Your task to perform on an android device: create a new album in the google photos Image 0: 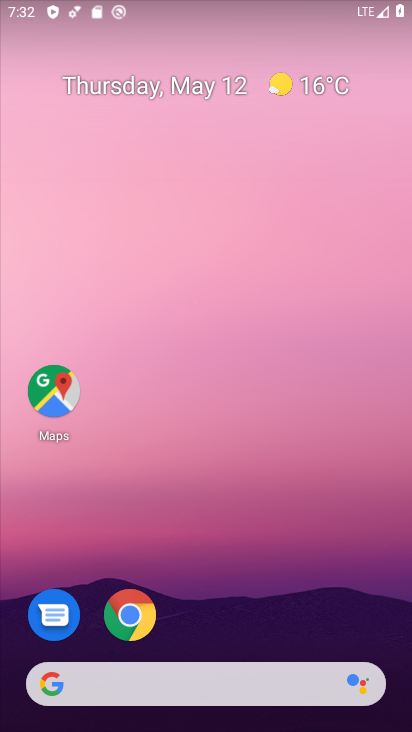
Step 0: drag from (293, 534) to (221, 36)
Your task to perform on an android device: create a new album in the google photos Image 1: 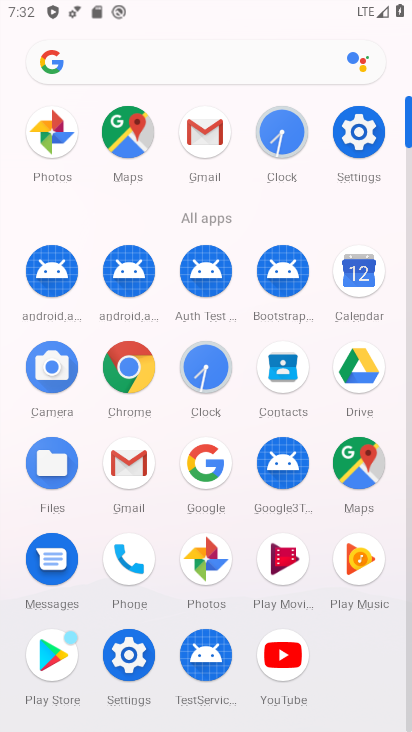
Step 1: click (58, 126)
Your task to perform on an android device: create a new album in the google photos Image 2: 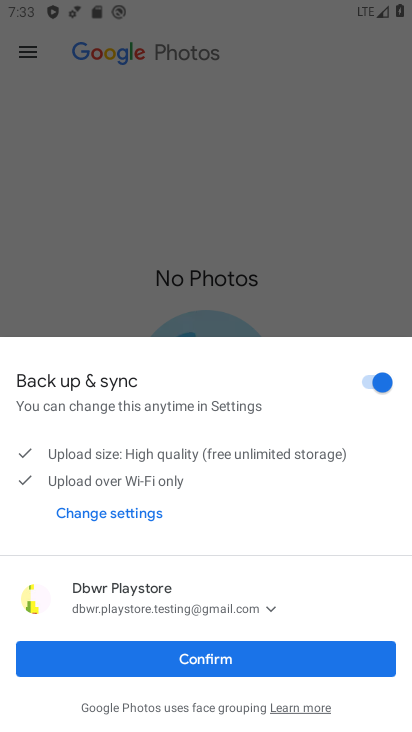
Step 2: click (279, 660)
Your task to perform on an android device: create a new album in the google photos Image 3: 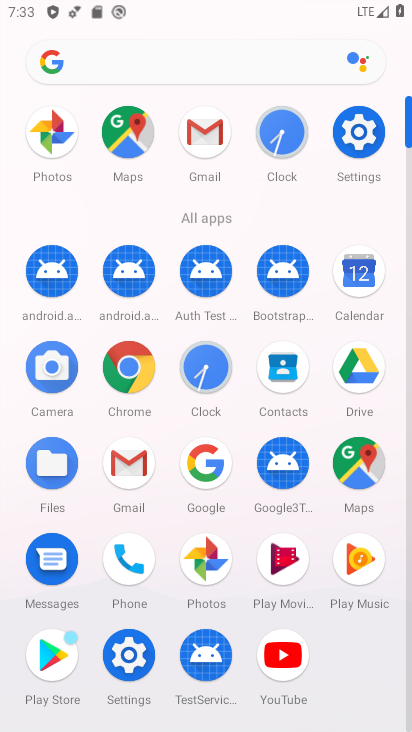
Step 3: click (47, 120)
Your task to perform on an android device: create a new album in the google photos Image 4: 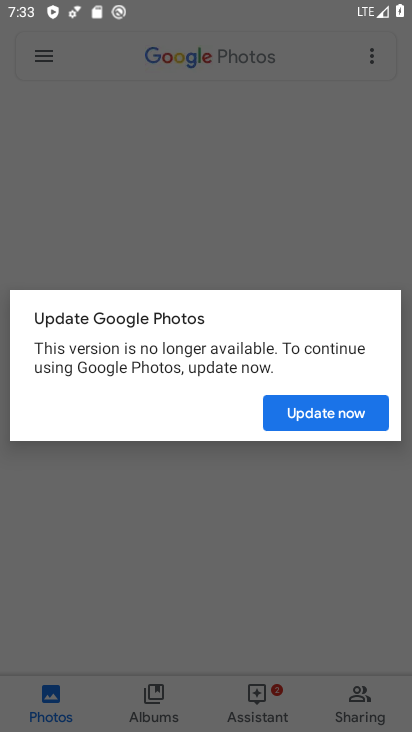
Step 4: click (326, 411)
Your task to perform on an android device: create a new album in the google photos Image 5: 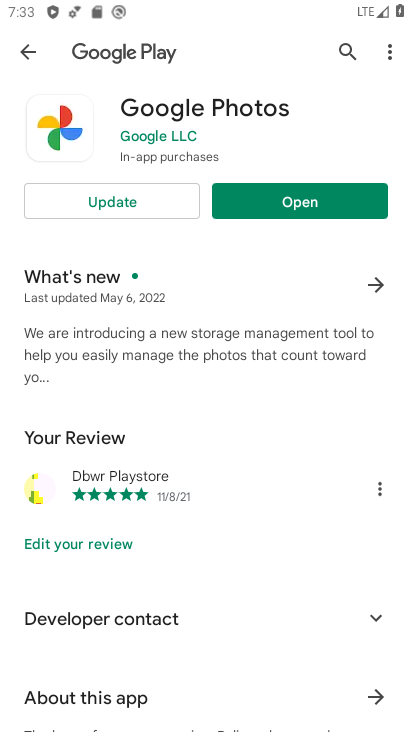
Step 5: click (302, 199)
Your task to perform on an android device: create a new album in the google photos Image 6: 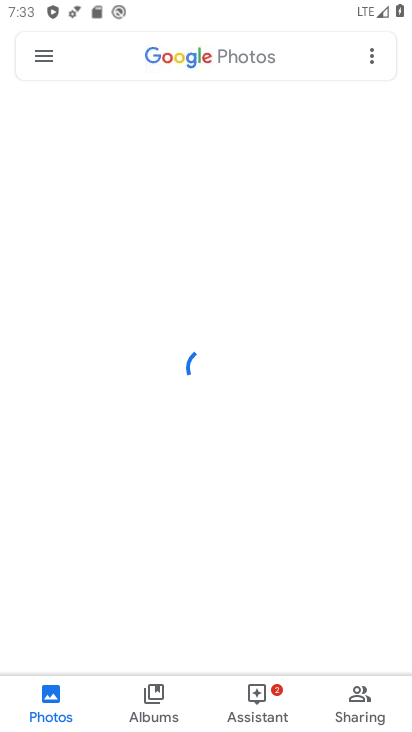
Step 6: click (144, 688)
Your task to perform on an android device: create a new album in the google photos Image 7: 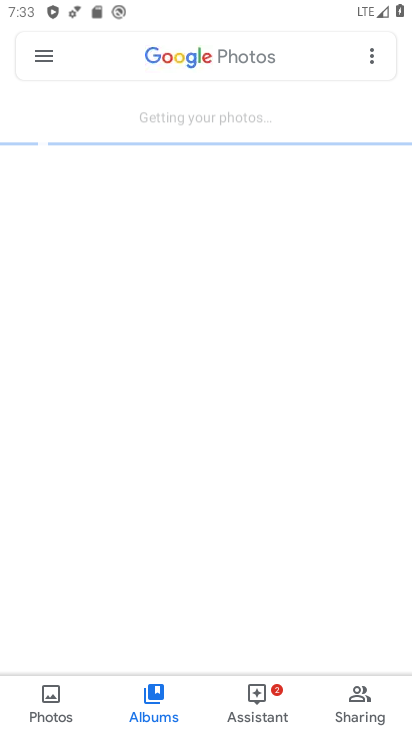
Step 7: click (156, 705)
Your task to perform on an android device: create a new album in the google photos Image 8: 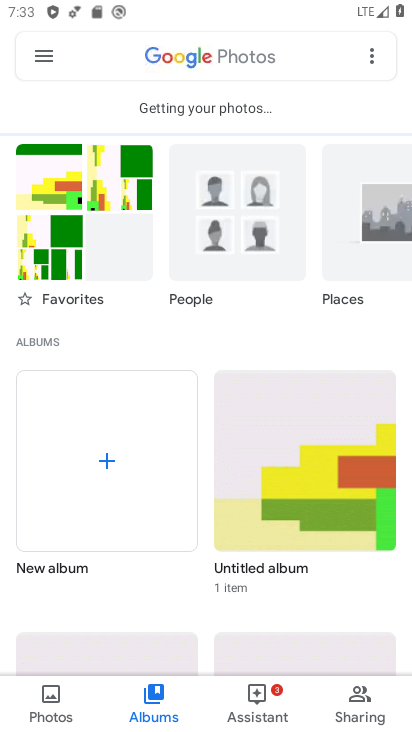
Step 8: click (368, 50)
Your task to perform on an android device: create a new album in the google photos Image 9: 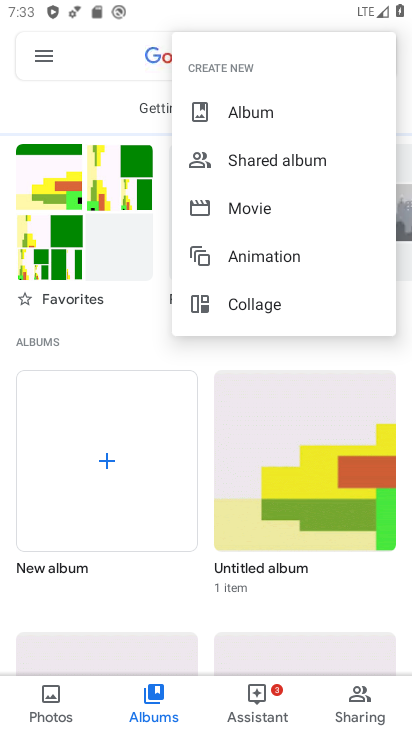
Step 9: click (312, 102)
Your task to perform on an android device: create a new album in the google photos Image 10: 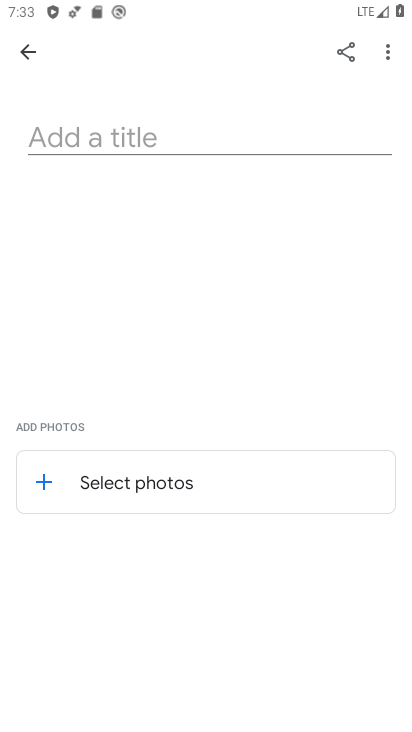
Step 10: click (240, 139)
Your task to perform on an android device: create a new album in the google photos Image 11: 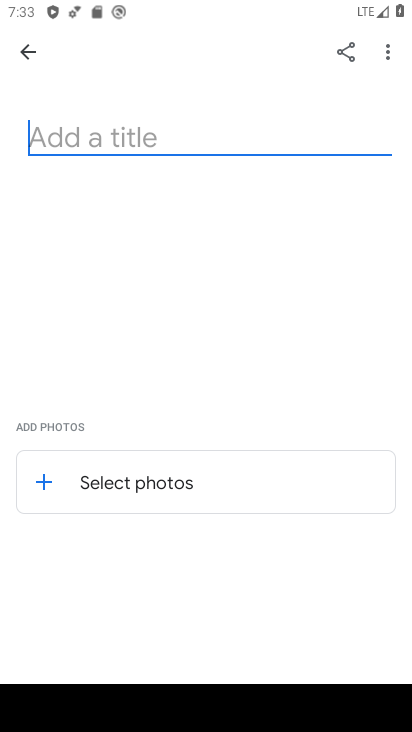
Step 11: type "Kamakhya Mandir"
Your task to perform on an android device: create a new album in the google photos Image 12: 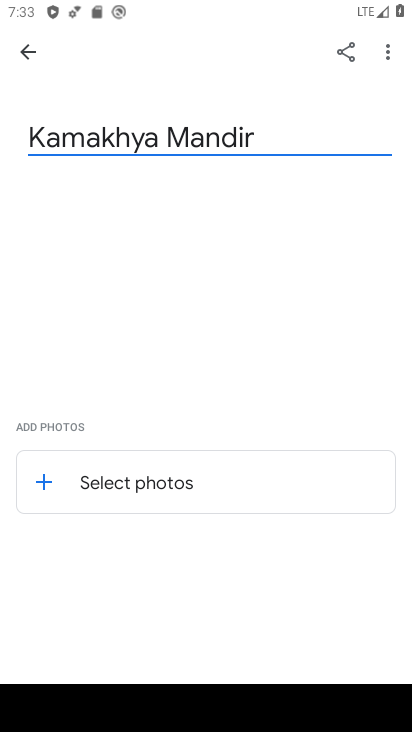
Step 12: click (34, 475)
Your task to perform on an android device: create a new album in the google photos Image 13: 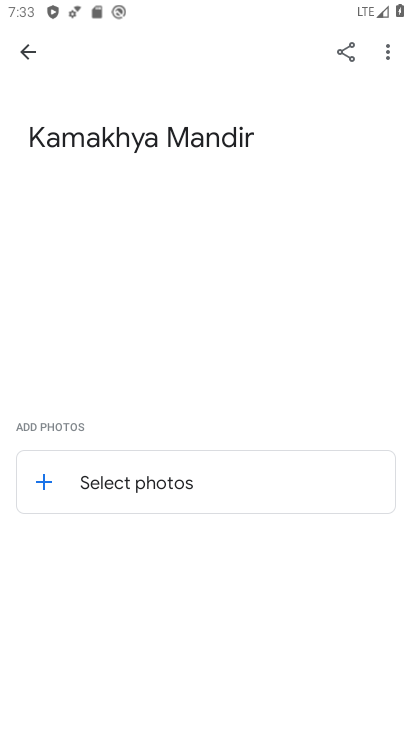
Step 13: click (38, 475)
Your task to perform on an android device: create a new album in the google photos Image 14: 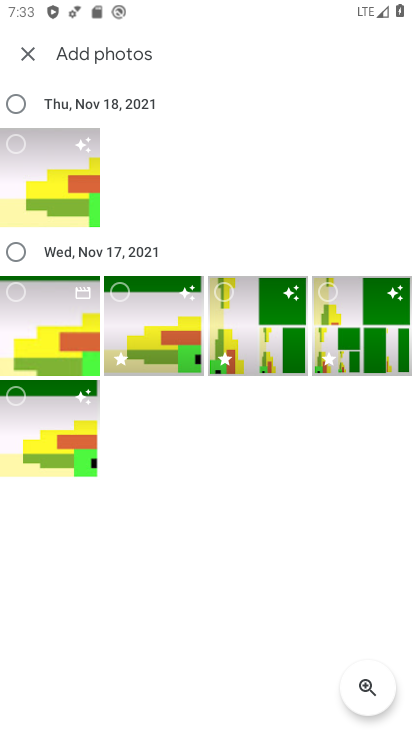
Step 14: click (18, 291)
Your task to perform on an android device: create a new album in the google photos Image 15: 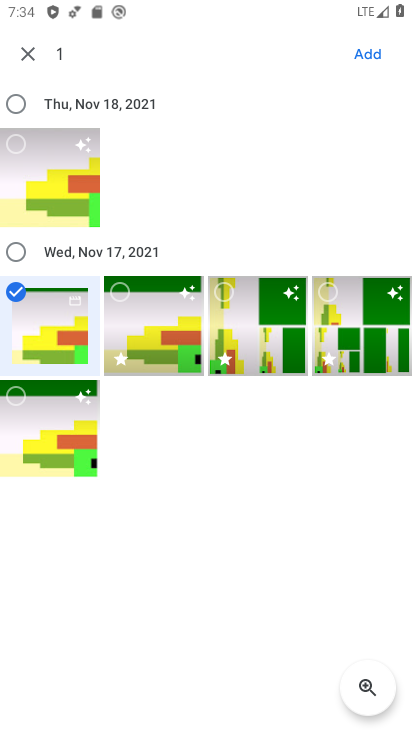
Step 15: click (359, 45)
Your task to perform on an android device: create a new album in the google photos Image 16: 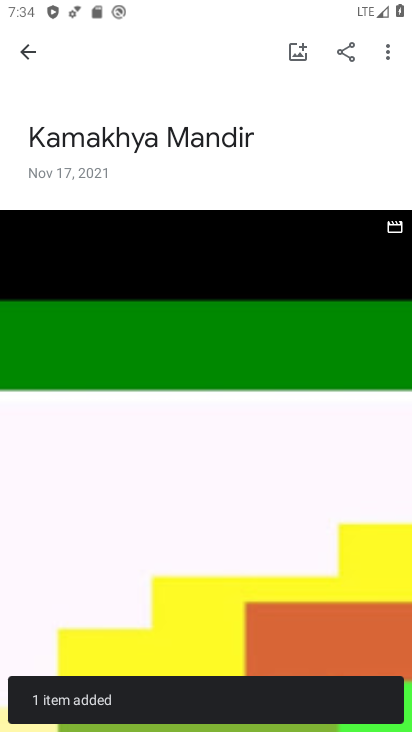
Step 16: task complete